Your task to perform on an android device: Search for usb-b on costco.com, select the first entry, and add it to the cart. Image 0: 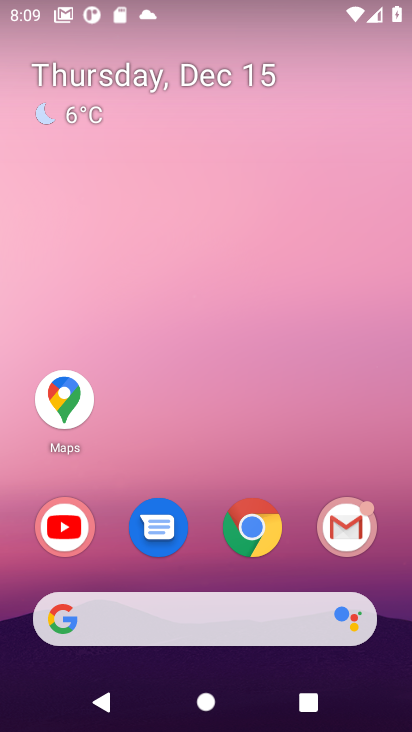
Step 0: click (278, 538)
Your task to perform on an android device: Search for usb-b on costco.com, select the first entry, and add it to the cart. Image 1: 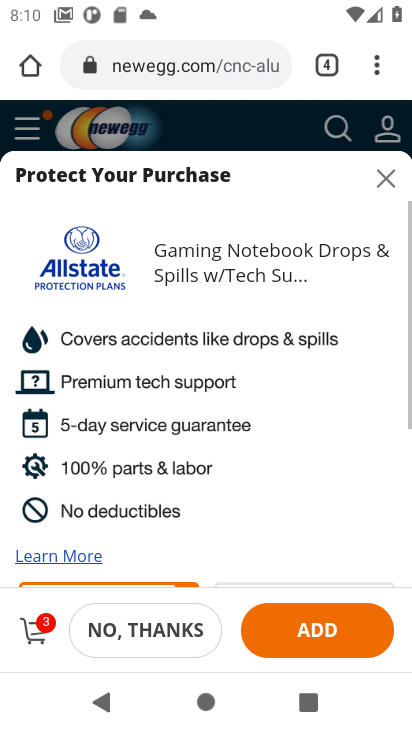
Step 1: click (386, 195)
Your task to perform on an android device: Search for usb-b on costco.com, select the first entry, and add it to the cart. Image 2: 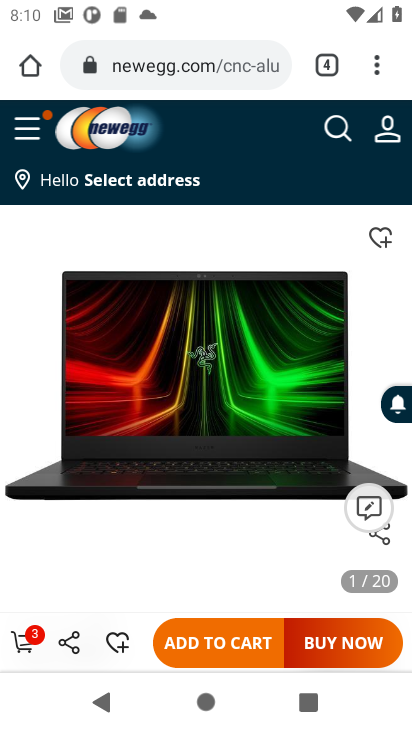
Step 2: click (181, 76)
Your task to perform on an android device: Search for usb-b on costco.com, select the first entry, and add it to the cart. Image 3: 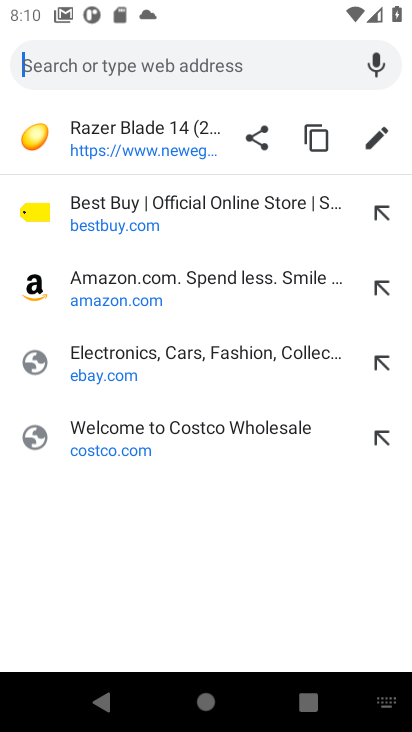
Step 3: type "costco"
Your task to perform on an android device: Search for usb-b on costco.com, select the first entry, and add it to the cart. Image 4: 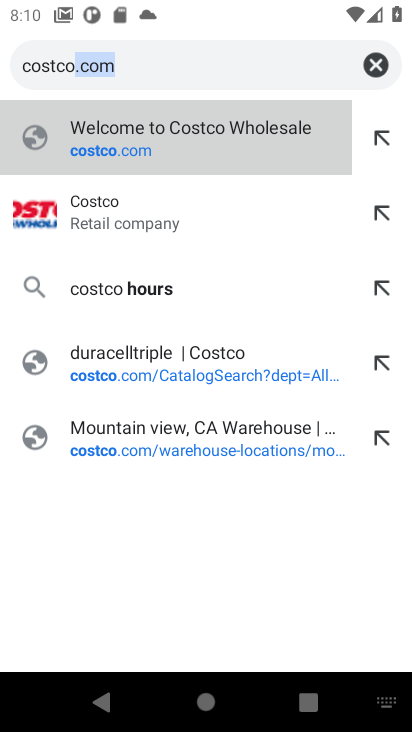
Step 4: click (141, 146)
Your task to perform on an android device: Search for usb-b on costco.com, select the first entry, and add it to the cart. Image 5: 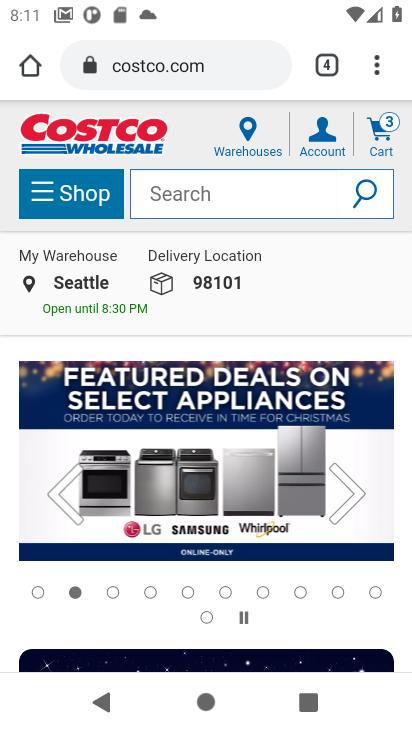
Step 5: click (180, 198)
Your task to perform on an android device: Search for usb-b on costco.com, select the first entry, and add it to the cart. Image 6: 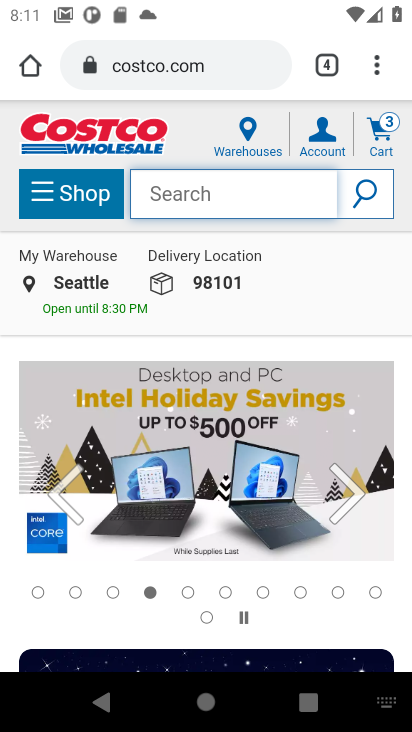
Step 6: type "usb-b"
Your task to perform on an android device: Search for usb-b on costco.com, select the first entry, and add it to the cart. Image 7: 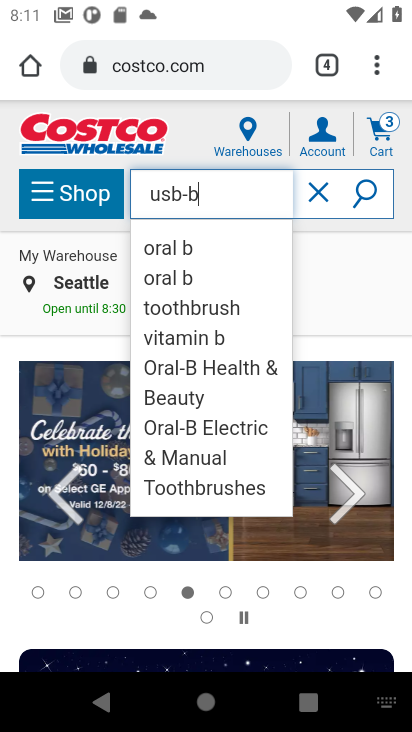
Step 7: click (376, 213)
Your task to perform on an android device: Search for usb-b on costco.com, select the first entry, and add it to the cart. Image 8: 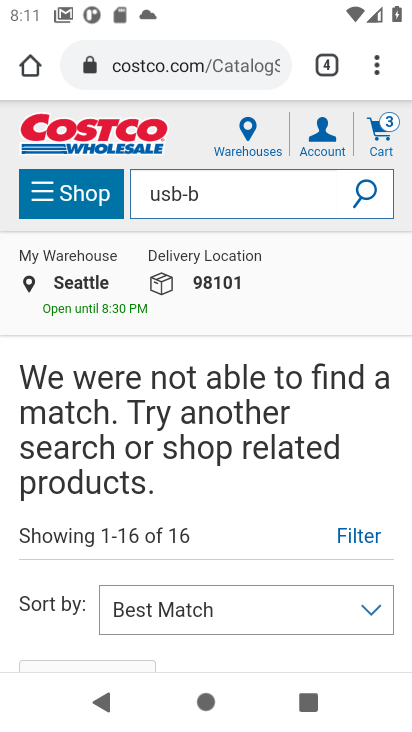
Step 8: click (370, 211)
Your task to perform on an android device: Search for usb-b on costco.com, select the first entry, and add it to the cart. Image 9: 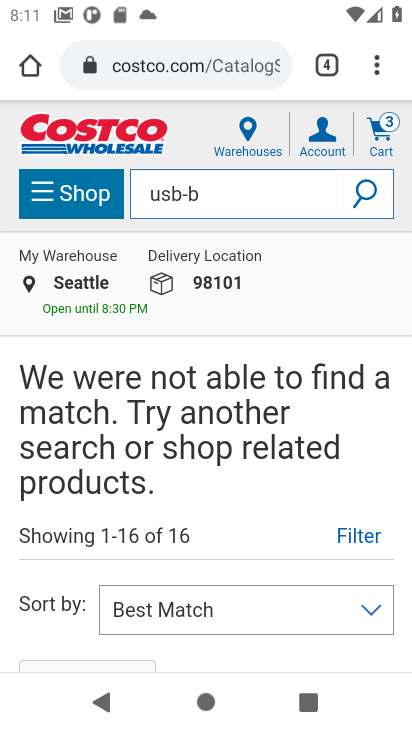
Step 9: task complete